Your task to perform on an android device: visit the assistant section in the google photos Image 0: 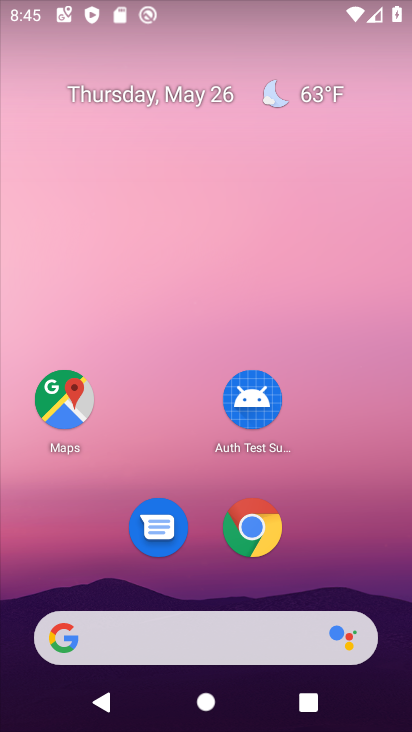
Step 0: drag from (373, 522) to (315, 23)
Your task to perform on an android device: visit the assistant section in the google photos Image 1: 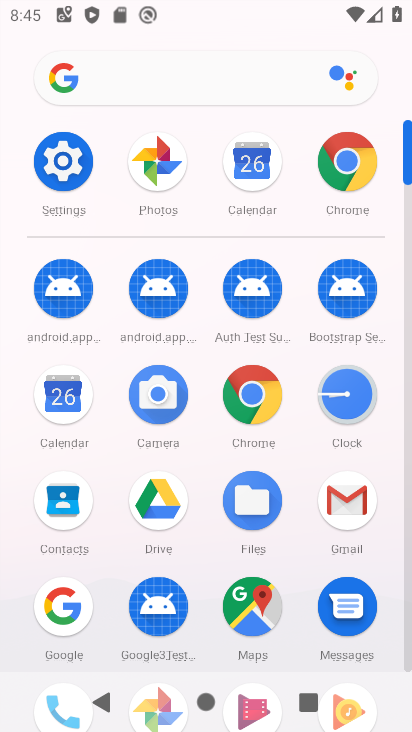
Step 1: click (86, 182)
Your task to perform on an android device: visit the assistant section in the google photos Image 2: 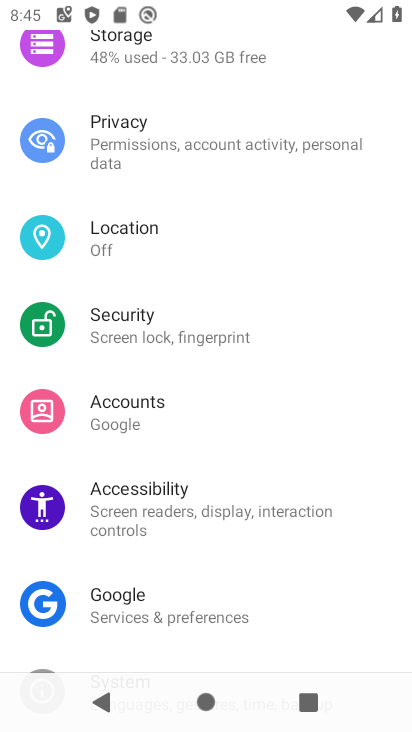
Step 2: drag from (216, 210) to (271, 548)
Your task to perform on an android device: visit the assistant section in the google photos Image 3: 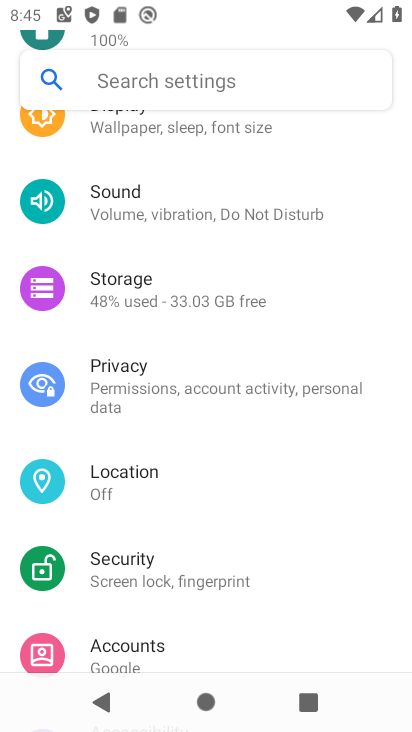
Step 3: drag from (259, 218) to (284, 583)
Your task to perform on an android device: visit the assistant section in the google photos Image 4: 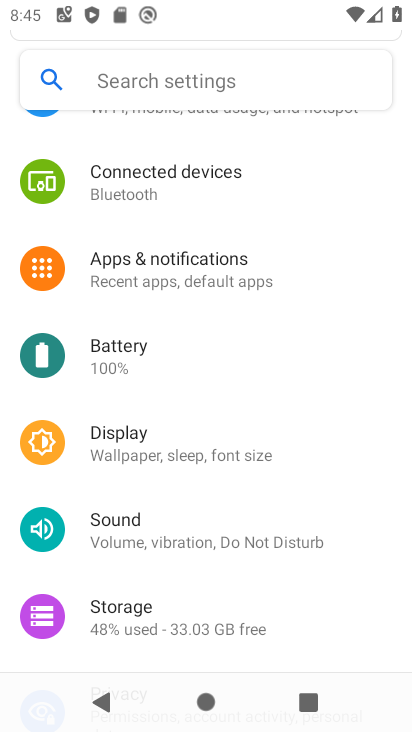
Step 4: click (201, 262)
Your task to perform on an android device: visit the assistant section in the google photos Image 5: 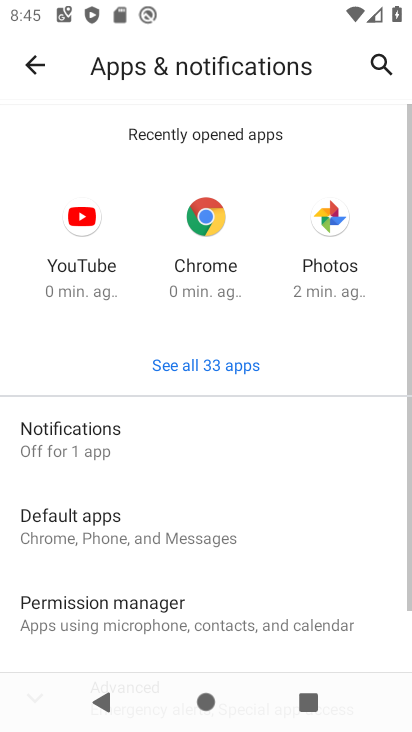
Step 5: click (94, 442)
Your task to perform on an android device: visit the assistant section in the google photos Image 6: 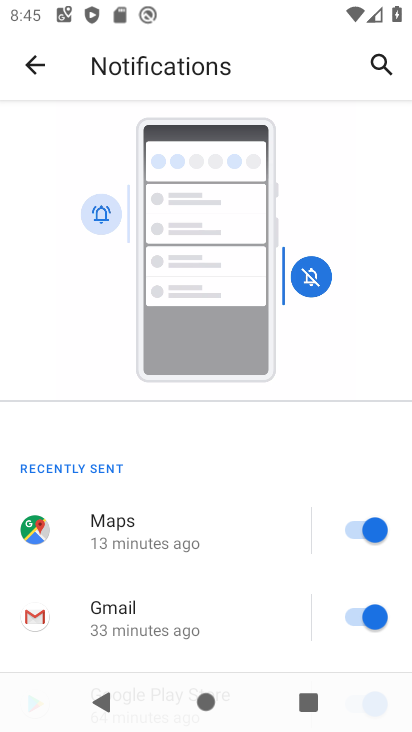
Step 6: drag from (174, 539) to (150, 209)
Your task to perform on an android device: visit the assistant section in the google photos Image 7: 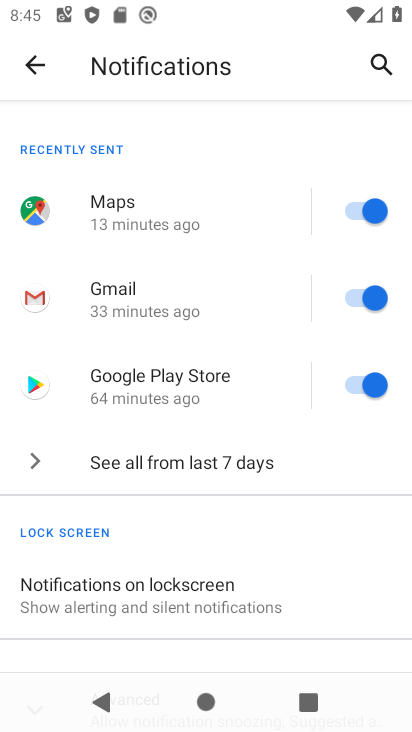
Step 7: click (46, 65)
Your task to perform on an android device: visit the assistant section in the google photos Image 8: 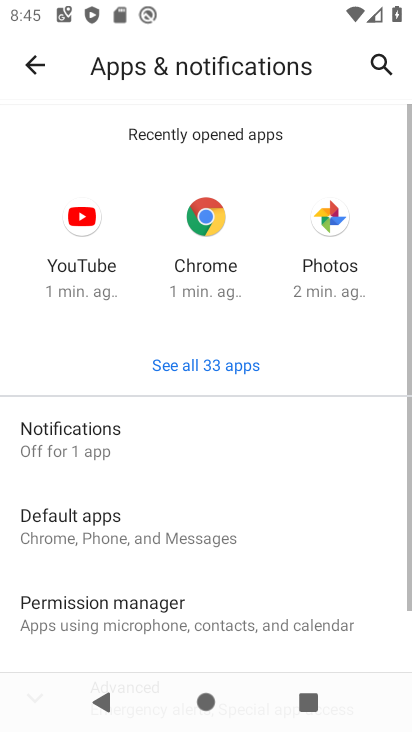
Step 8: click (46, 65)
Your task to perform on an android device: visit the assistant section in the google photos Image 9: 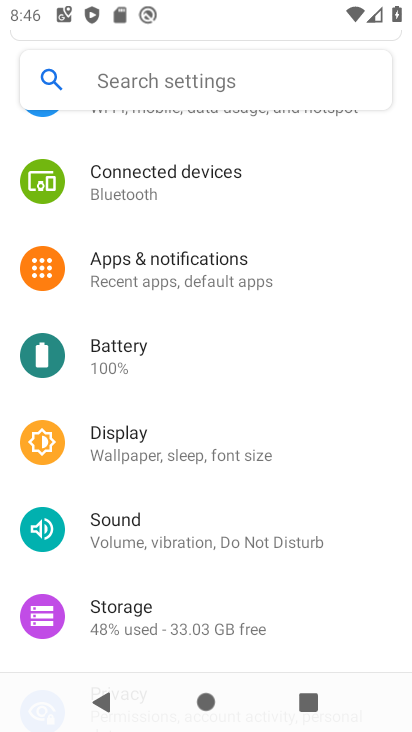
Step 9: press home button
Your task to perform on an android device: visit the assistant section in the google photos Image 10: 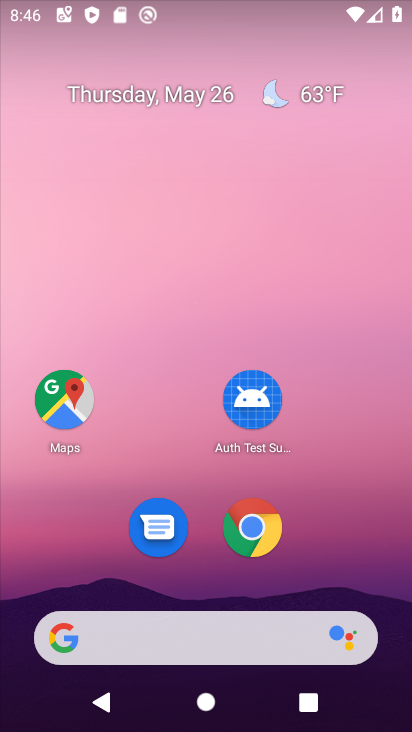
Step 10: drag from (360, 481) to (389, 65)
Your task to perform on an android device: visit the assistant section in the google photos Image 11: 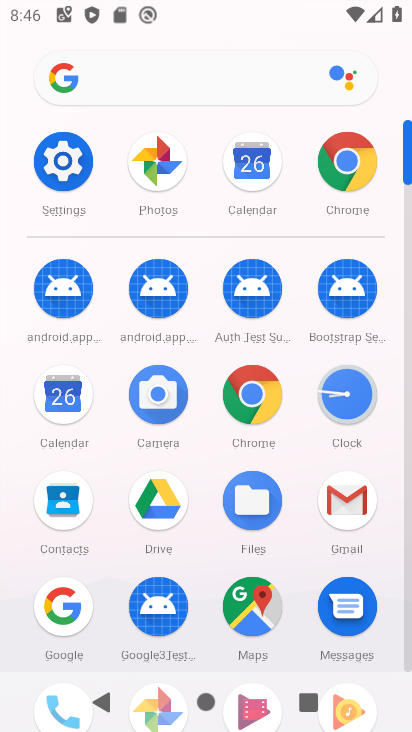
Step 11: click (144, 161)
Your task to perform on an android device: visit the assistant section in the google photos Image 12: 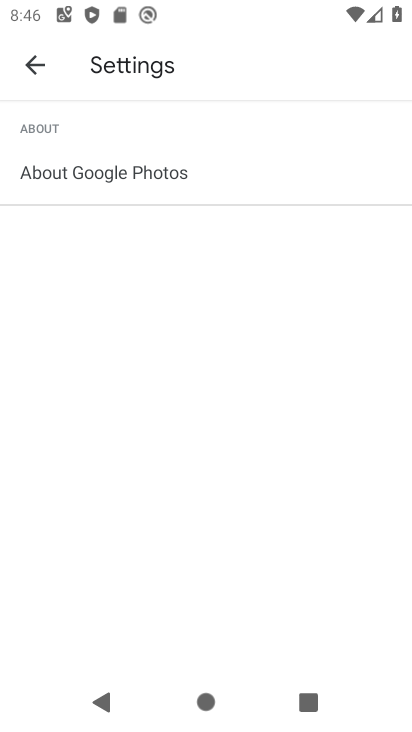
Step 12: click (112, 123)
Your task to perform on an android device: visit the assistant section in the google photos Image 13: 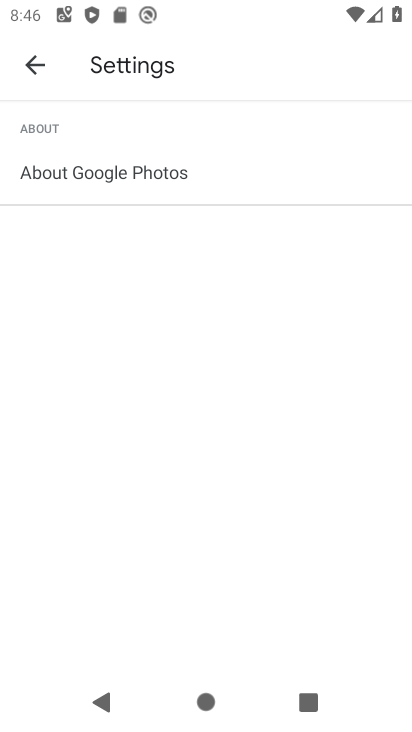
Step 13: click (54, 83)
Your task to perform on an android device: visit the assistant section in the google photos Image 14: 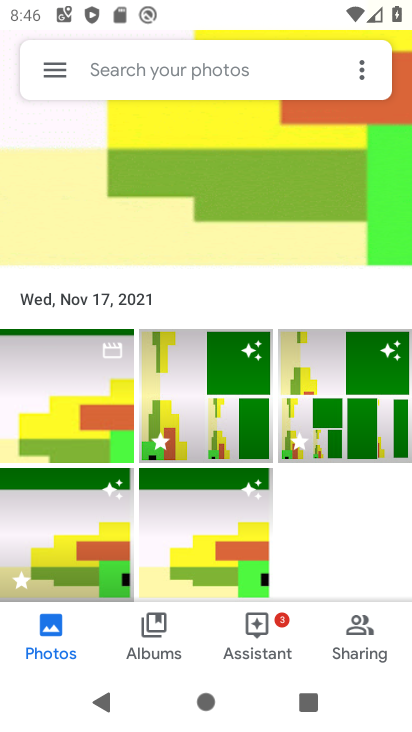
Step 14: click (246, 639)
Your task to perform on an android device: visit the assistant section in the google photos Image 15: 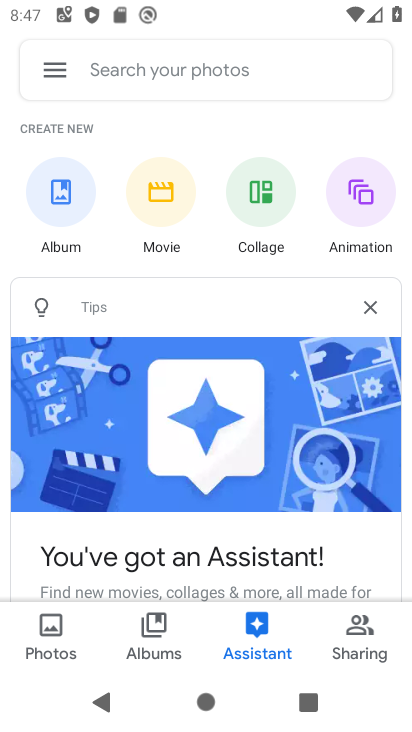
Step 15: task complete